Your task to perform on an android device: Open Google Chrome and click the shortcut for Amazon.com Image 0: 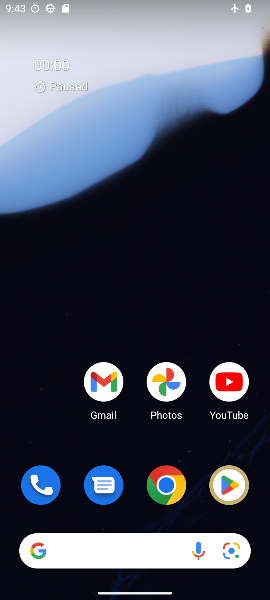
Step 0: drag from (130, 439) to (136, 75)
Your task to perform on an android device: Open Google Chrome and click the shortcut for Amazon.com Image 1: 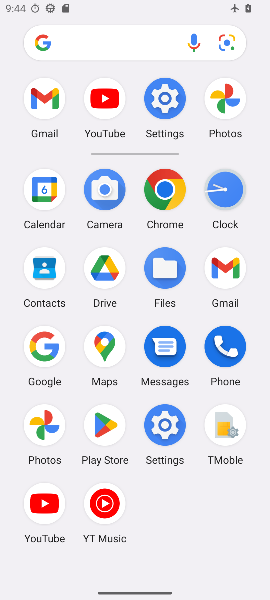
Step 1: click (165, 188)
Your task to perform on an android device: Open Google Chrome and click the shortcut for Amazon.com Image 2: 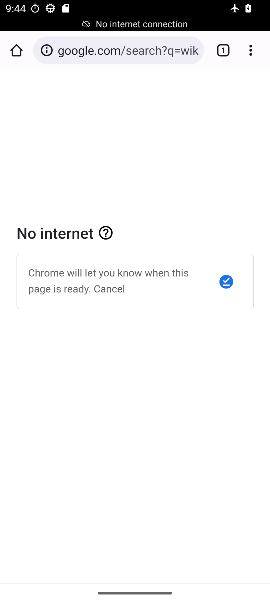
Step 2: drag from (250, 49) to (165, 130)
Your task to perform on an android device: Open Google Chrome and click the shortcut for Amazon.com Image 3: 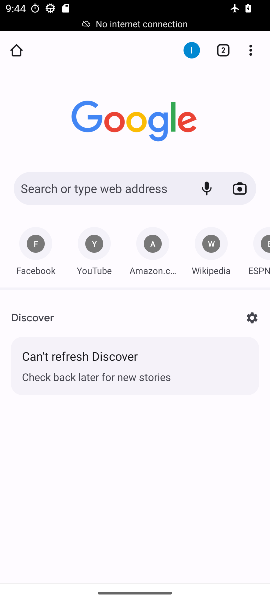
Step 3: click (155, 252)
Your task to perform on an android device: Open Google Chrome and click the shortcut for Amazon.com Image 4: 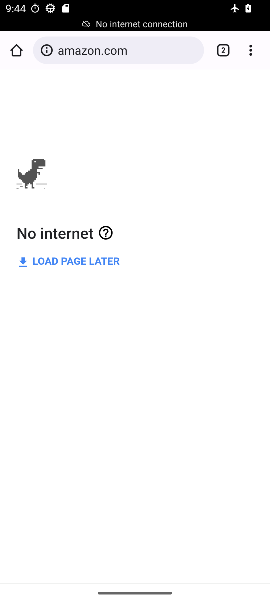
Step 4: task complete